Your task to perform on an android device: Open Amazon Image 0: 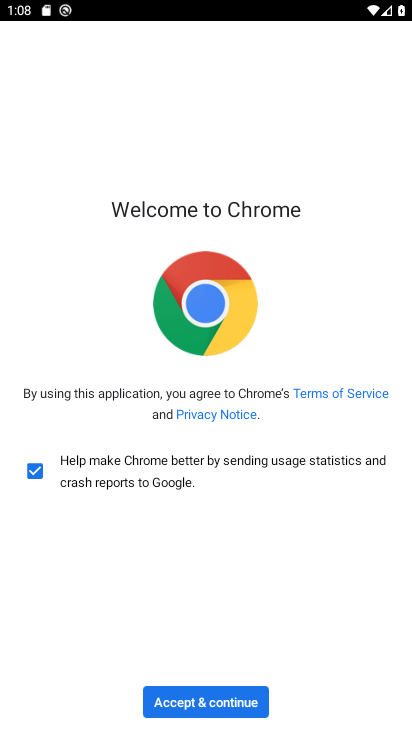
Step 0: press home button
Your task to perform on an android device: Open Amazon Image 1: 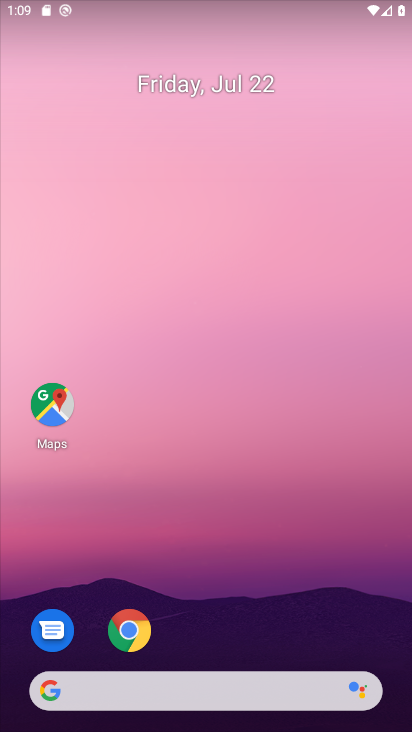
Step 1: click (132, 640)
Your task to perform on an android device: Open Amazon Image 2: 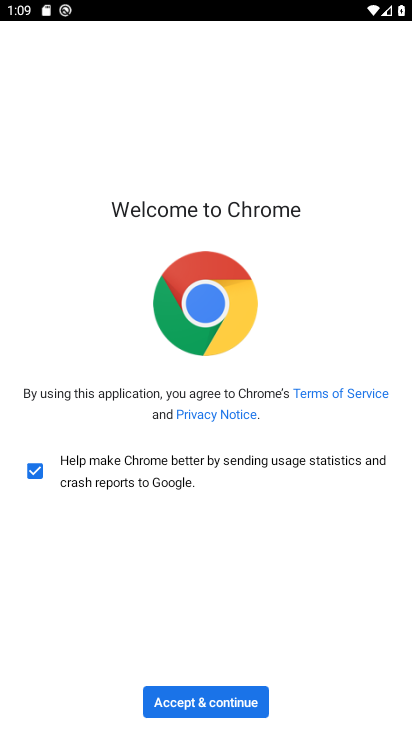
Step 2: click (218, 701)
Your task to perform on an android device: Open Amazon Image 3: 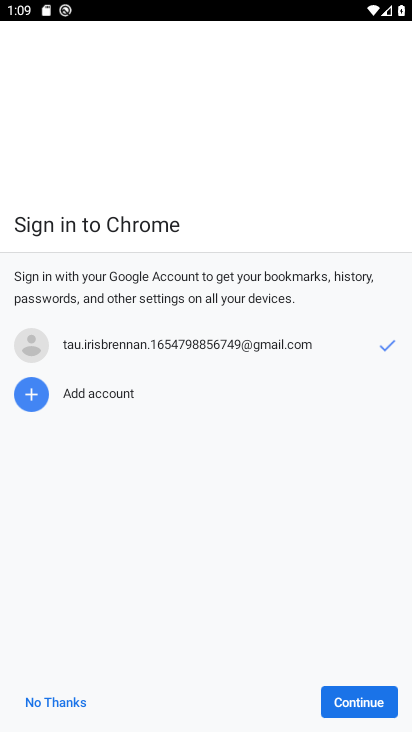
Step 3: click (324, 705)
Your task to perform on an android device: Open Amazon Image 4: 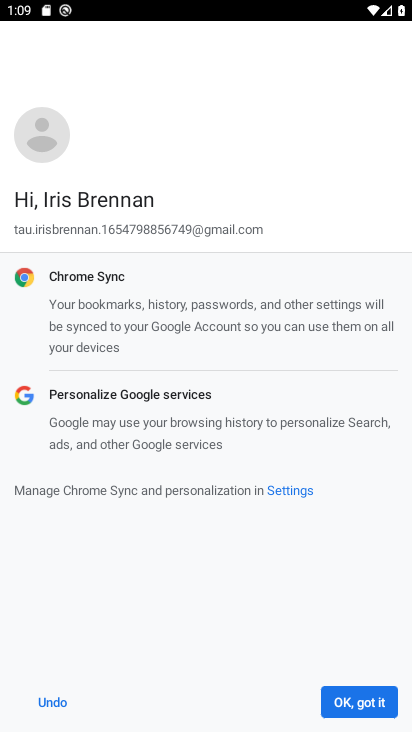
Step 4: click (338, 706)
Your task to perform on an android device: Open Amazon Image 5: 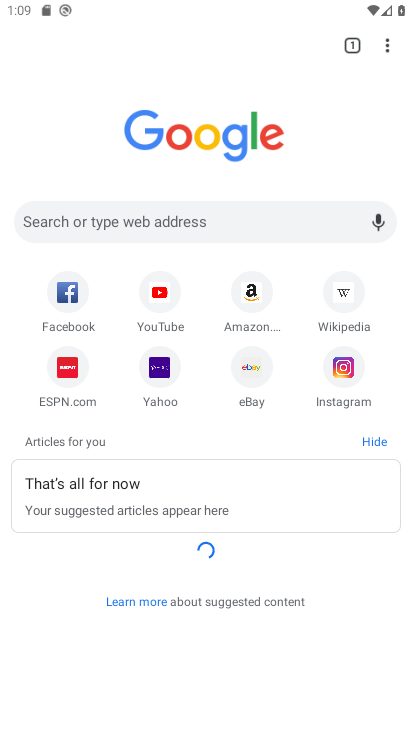
Step 5: click (253, 291)
Your task to perform on an android device: Open Amazon Image 6: 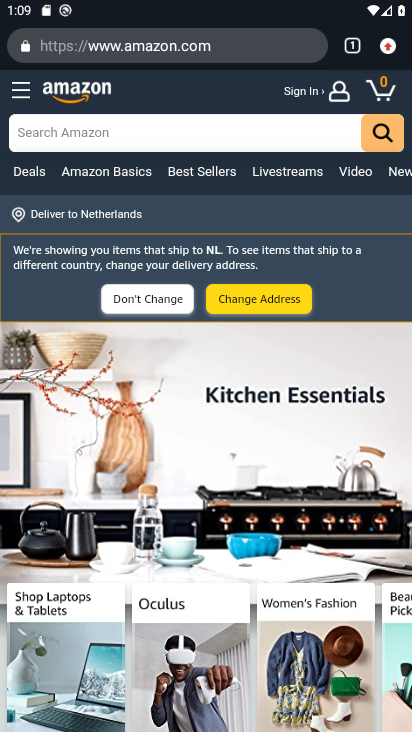
Step 6: task complete